Your task to perform on an android device: Search for Italian restaurants on Maps Image 0: 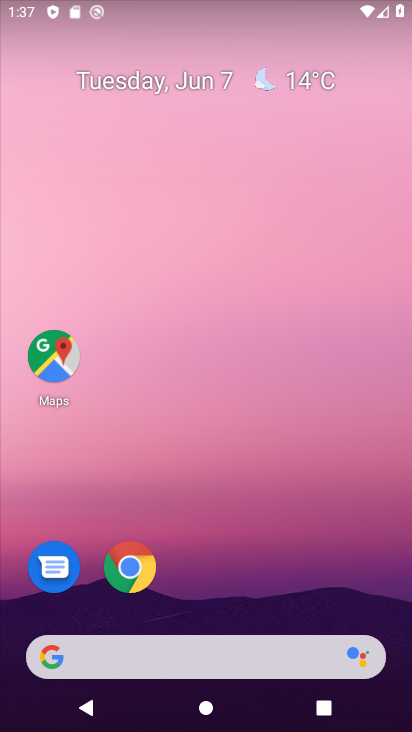
Step 0: drag from (275, 387) to (315, 4)
Your task to perform on an android device: Search for Italian restaurants on Maps Image 1: 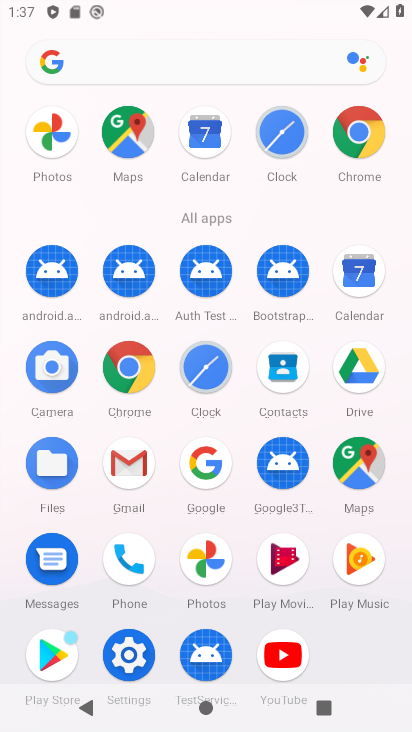
Step 1: click (364, 462)
Your task to perform on an android device: Search for Italian restaurants on Maps Image 2: 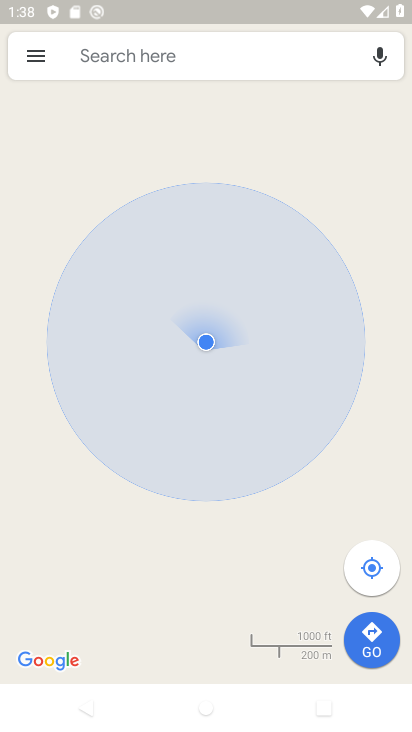
Step 2: click (206, 49)
Your task to perform on an android device: Search for Italian restaurants on Maps Image 3: 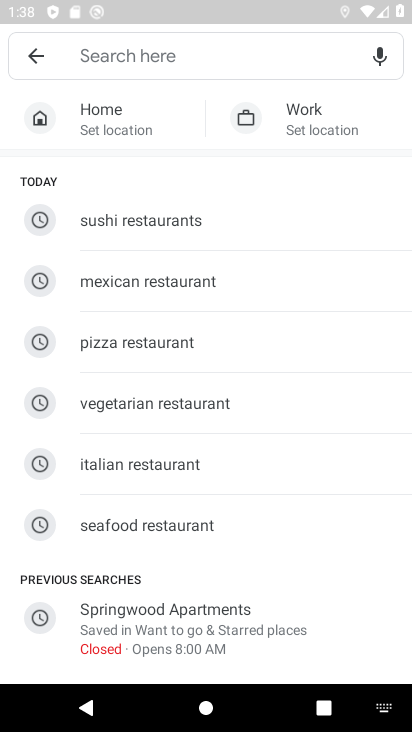
Step 3: type "italia"
Your task to perform on an android device: Search for Italian restaurants on Maps Image 4: 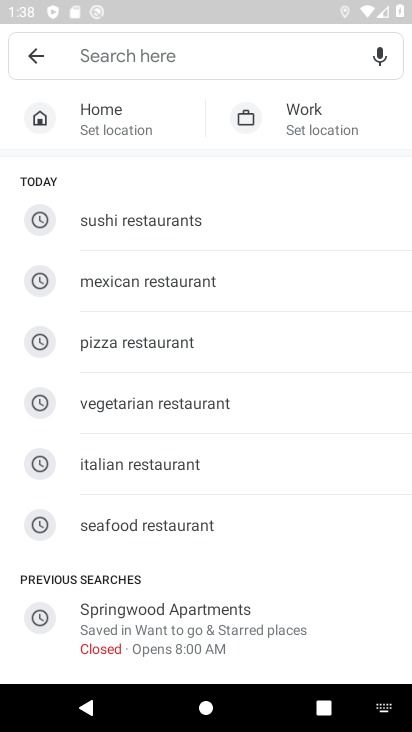
Step 4: click (93, 468)
Your task to perform on an android device: Search for Italian restaurants on Maps Image 5: 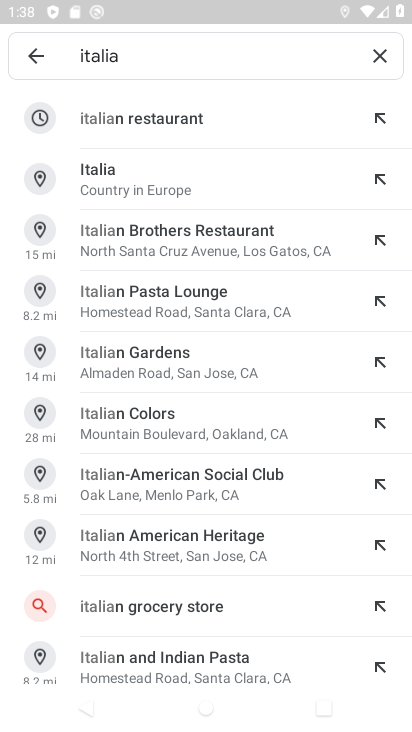
Step 5: click (135, 116)
Your task to perform on an android device: Search for Italian restaurants on Maps Image 6: 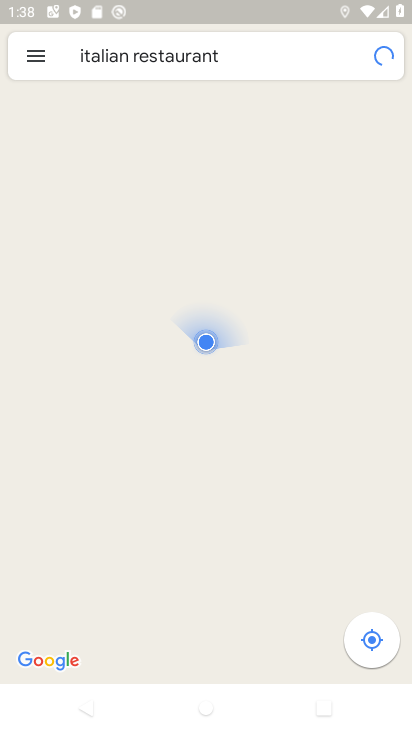
Step 6: task complete